Your task to perform on an android device: check out phone information Image 0: 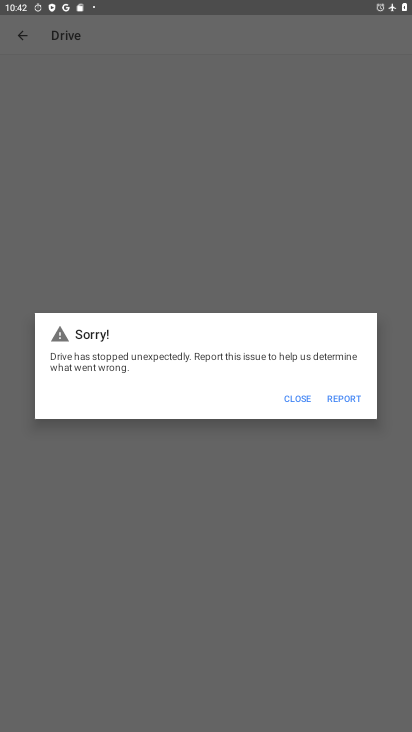
Step 0: press home button
Your task to perform on an android device: check out phone information Image 1: 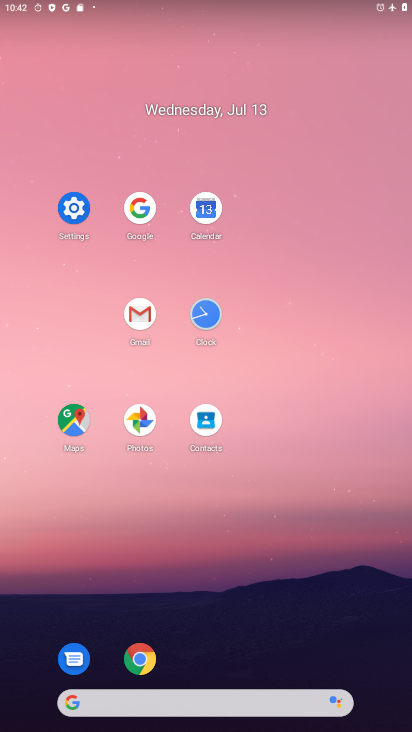
Step 1: click (94, 201)
Your task to perform on an android device: check out phone information Image 2: 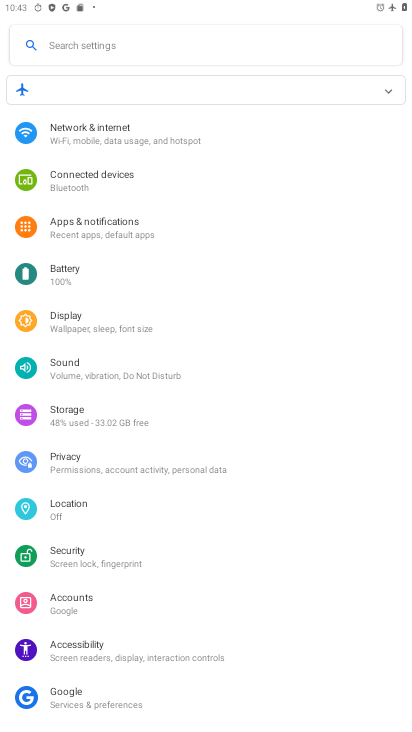
Step 2: drag from (146, 663) to (256, 242)
Your task to perform on an android device: check out phone information Image 3: 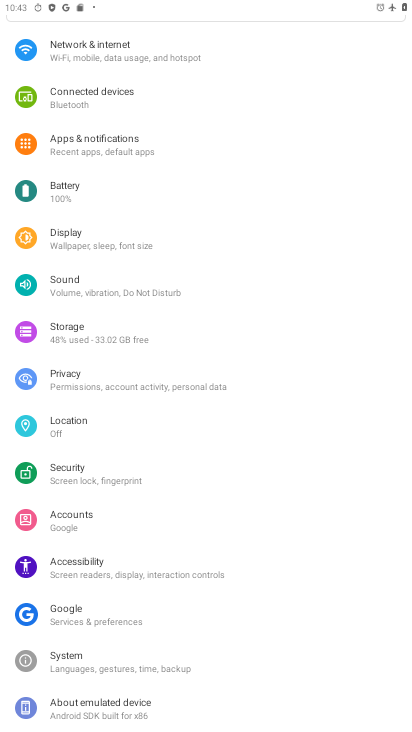
Step 3: click (129, 712)
Your task to perform on an android device: check out phone information Image 4: 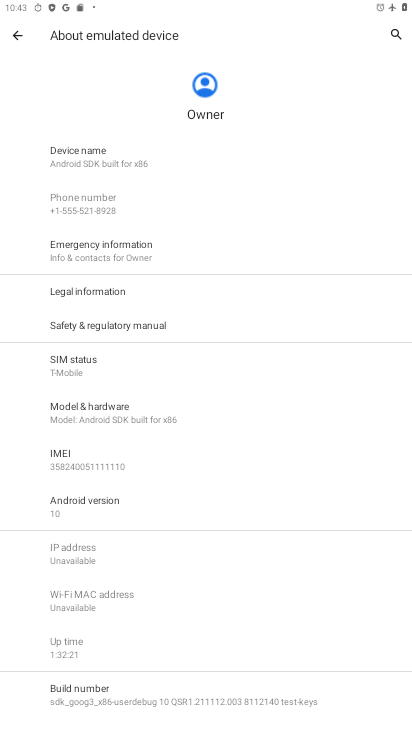
Step 4: click (187, 423)
Your task to perform on an android device: check out phone information Image 5: 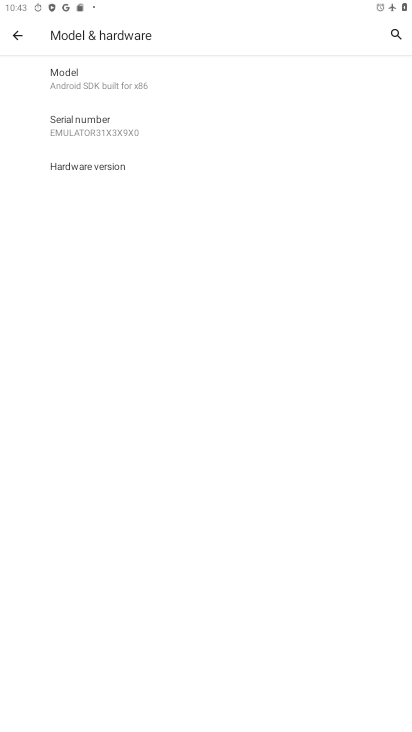
Step 5: task complete